Your task to perform on an android device: see creations saved in the google photos Image 0: 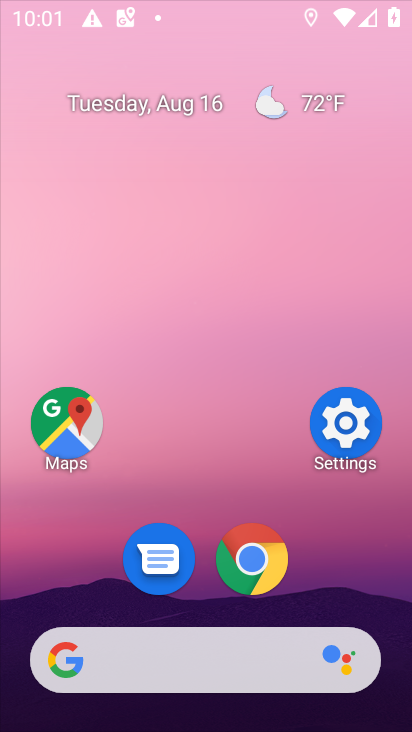
Step 0: click (302, 4)
Your task to perform on an android device: see creations saved in the google photos Image 1: 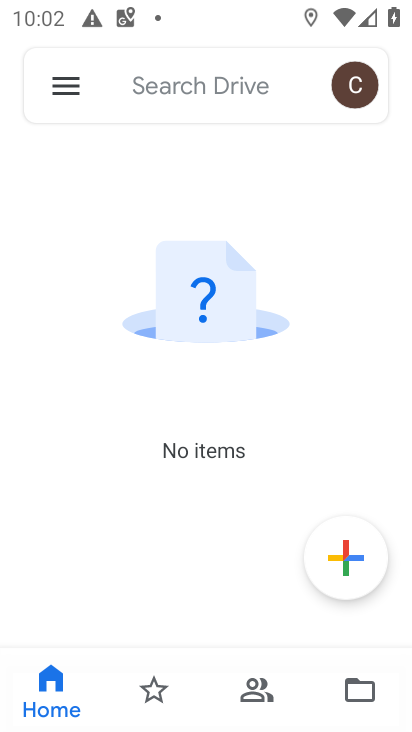
Step 1: press home button
Your task to perform on an android device: see creations saved in the google photos Image 2: 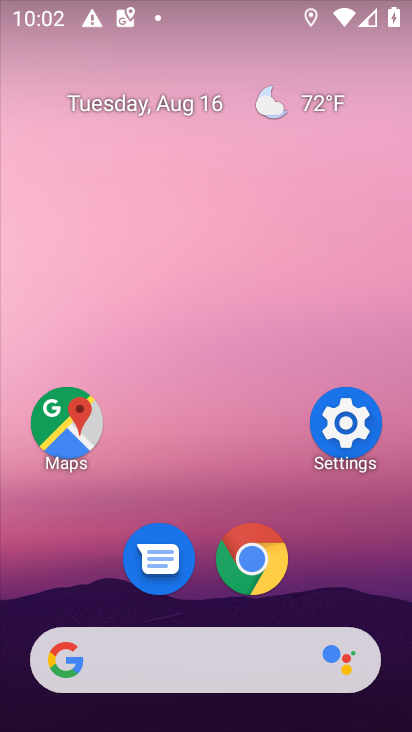
Step 2: drag from (158, 563) to (101, 544)
Your task to perform on an android device: see creations saved in the google photos Image 3: 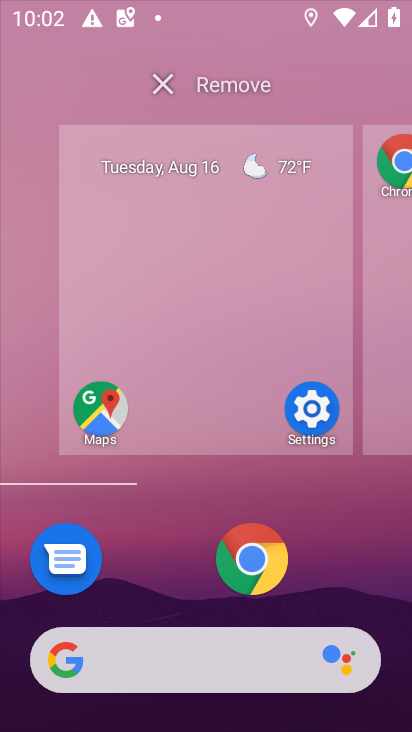
Step 3: drag from (265, 559) to (336, 549)
Your task to perform on an android device: see creations saved in the google photos Image 4: 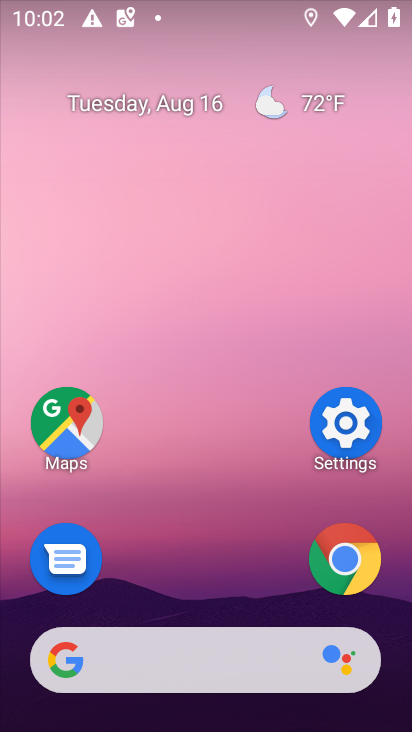
Step 4: drag from (186, 626) to (311, 136)
Your task to perform on an android device: see creations saved in the google photos Image 5: 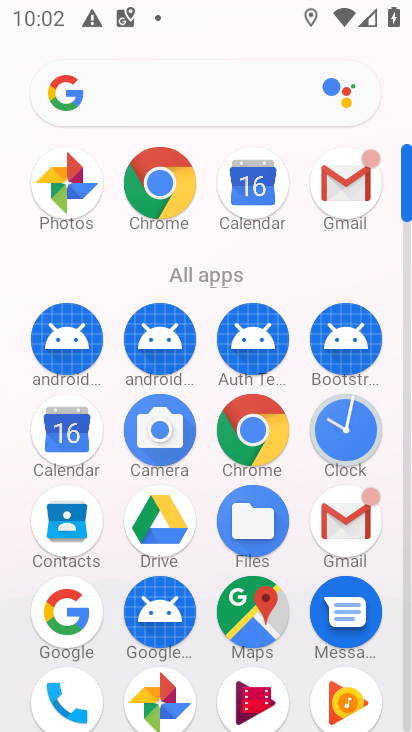
Step 5: click (154, 691)
Your task to perform on an android device: see creations saved in the google photos Image 6: 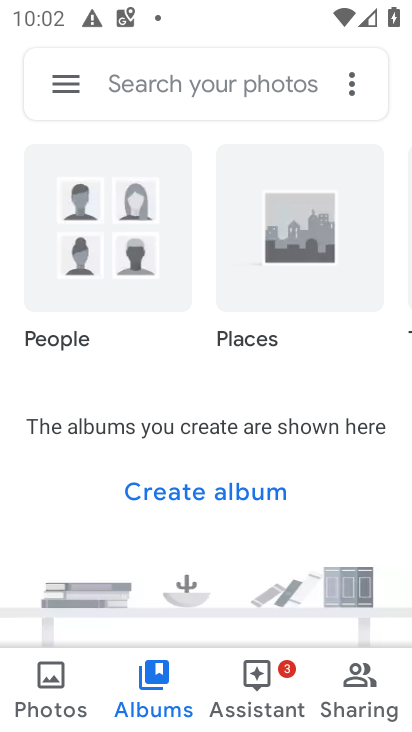
Step 6: click (141, 82)
Your task to perform on an android device: see creations saved in the google photos Image 7: 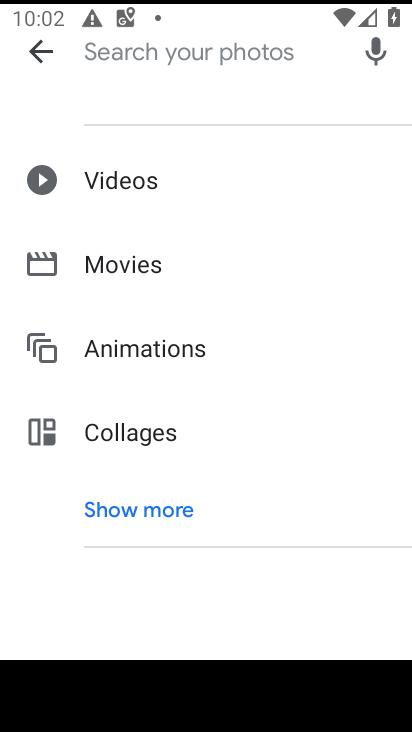
Step 7: click (129, 505)
Your task to perform on an android device: see creations saved in the google photos Image 8: 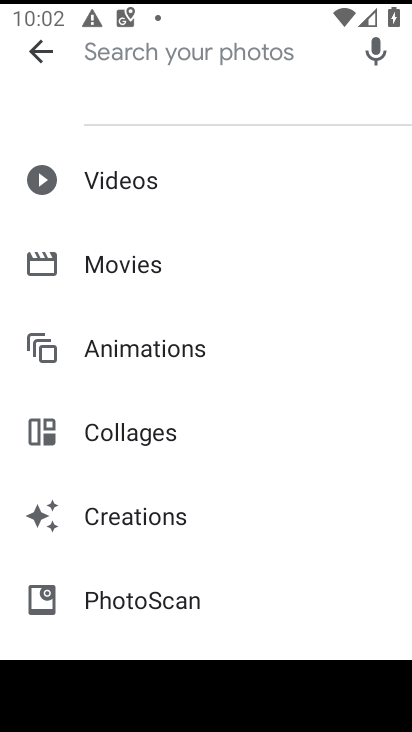
Step 8: click (140, 517)
Your task to perform on an android device: see creations saved in the google photos Image 9: 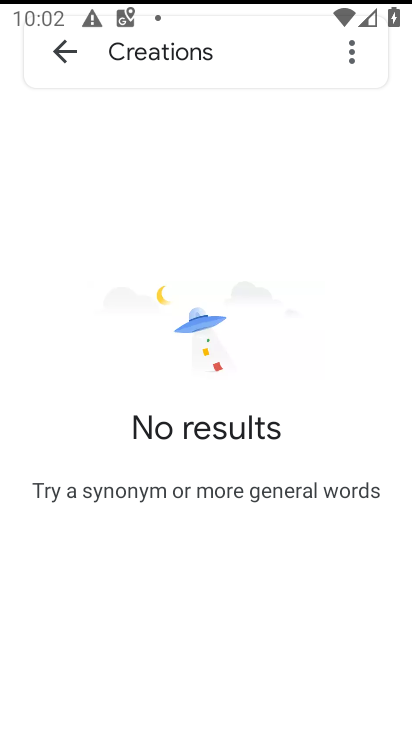
Step 9: task complete